Your task to perform on an android device: turn notification dots off Image 0: 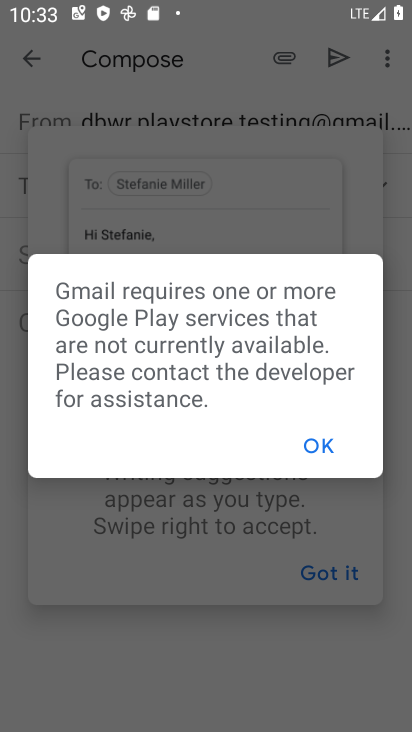
Step 0: press home button
Your task to perform on an android device: turn notification dots off Image 1: 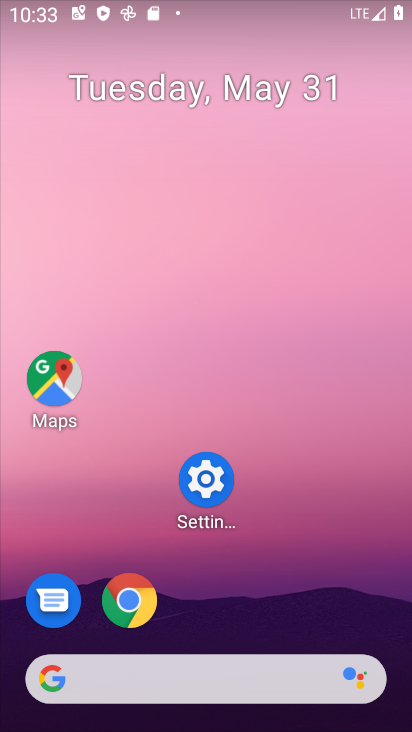
Step 1: drag from (239, 713) to (252, 453)
Your task to perform on an android device: turn notification dots off Image 2: 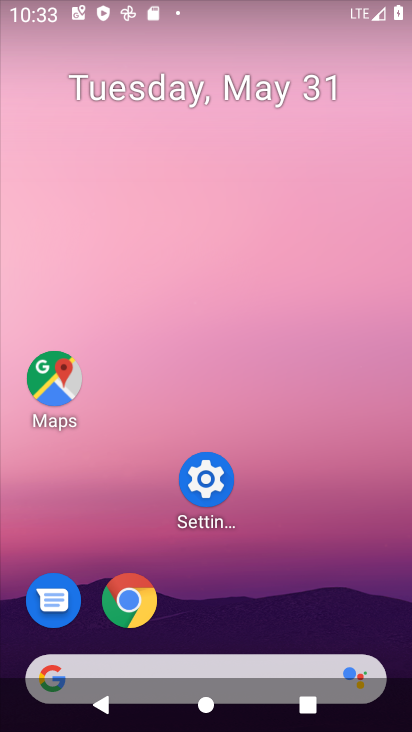
Step 2: click (221, 476)
Your task to perform on an android device: turn notification dots off Image 3: 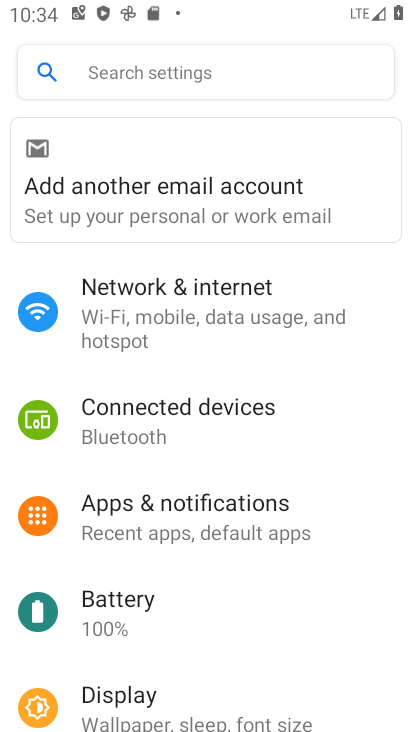
Step 3: click (126, 65)
Your task to perform on an android device: turn notification dots off Image 4: 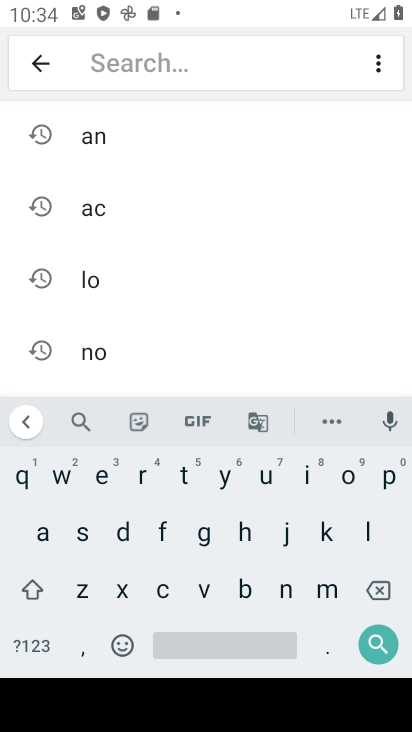
Step 4: click (120, 533)
Your task to perform on an android device: turn notification dots off Image 5: 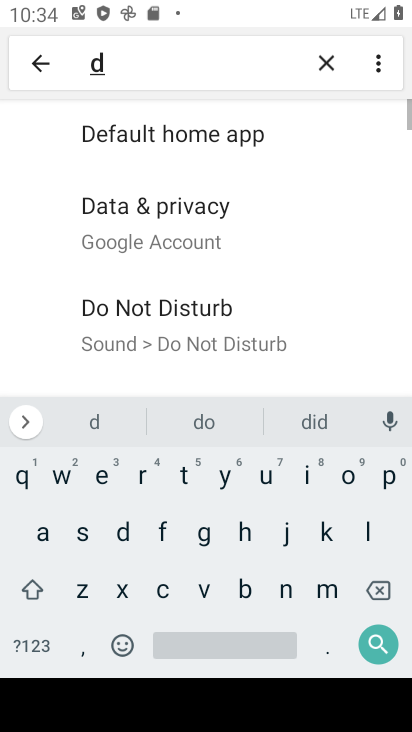
Step 5: click (353, 468)
Your task to perform on an android device: turn notification dots off Image 6: 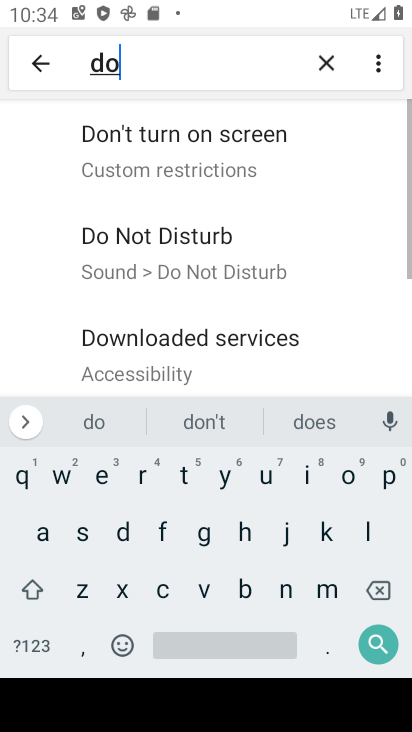
Step 6: click (178, 478)
Your task to perform on an android device: turn notification dots off Image 7: 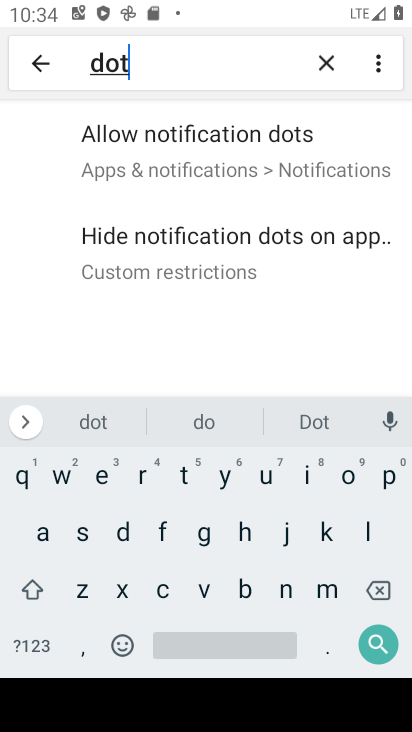
Step 7: click (235, 135)
Your task to perform on an android device: turn notification dots off Image 8: 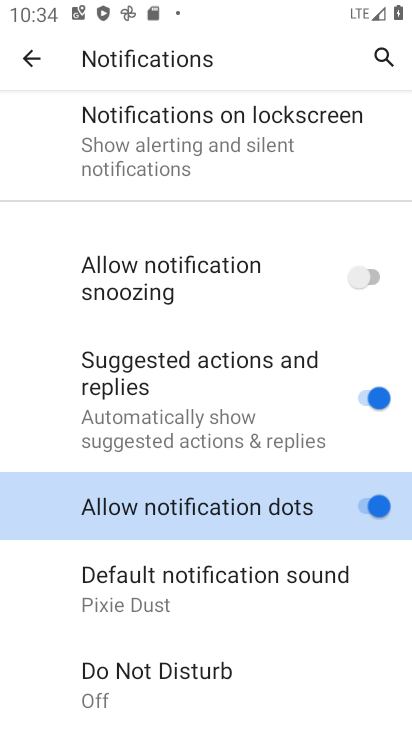
Step 8: click (289, 497)
Your task to perform on an android device: turn notification dots off Image 9: 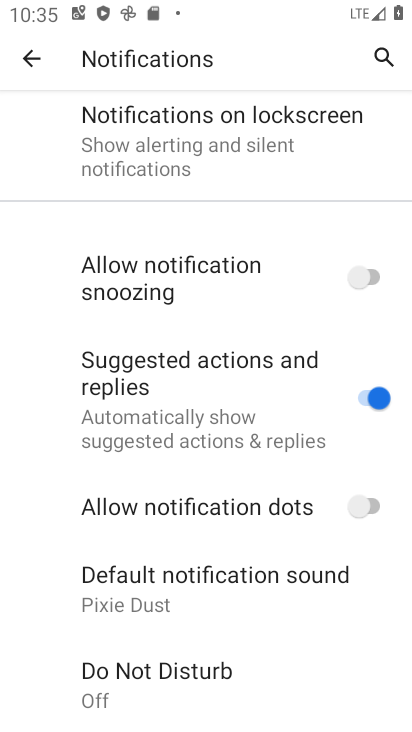
Step 9: task complete